Your task to perform on an android device: all mails in gmail Image 0: 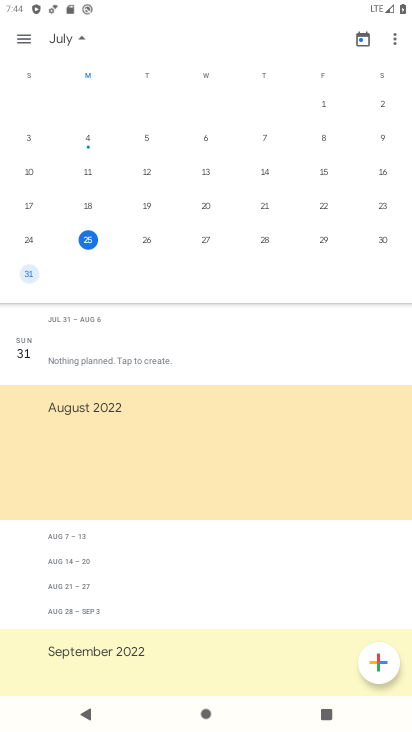
Step 0: press home button
Your task to perform on an android device: all mails in gmail Image 1: 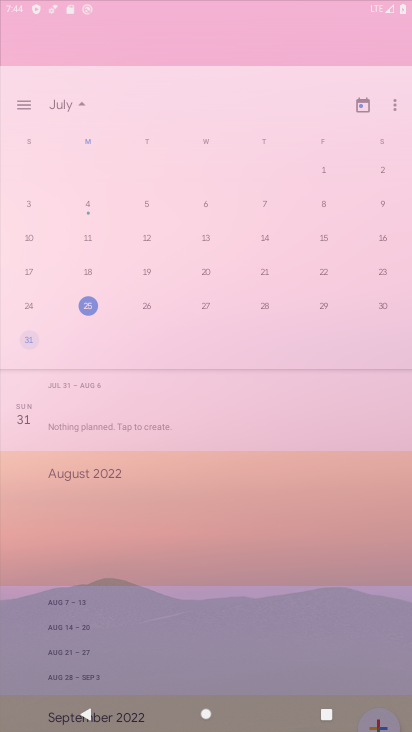
Step 1: drag from (192, 505) to (238, 186)
Your task to perform on an android device: all mails in gmail Image 2: 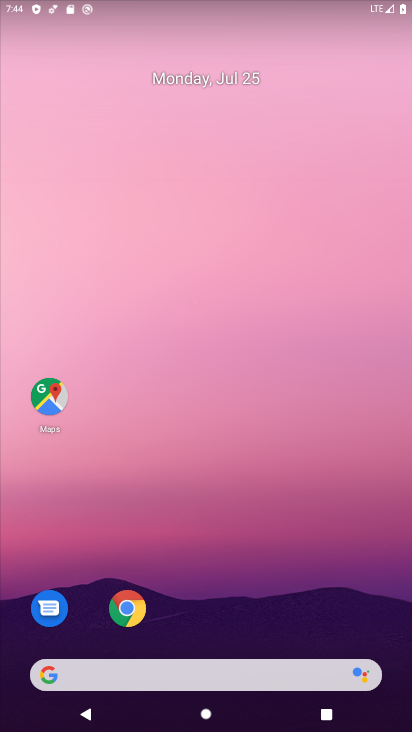
Step 2: drag from (211, 555) to (287, 108)
Your task to perform on an android device: all mails in gmail Image 3: 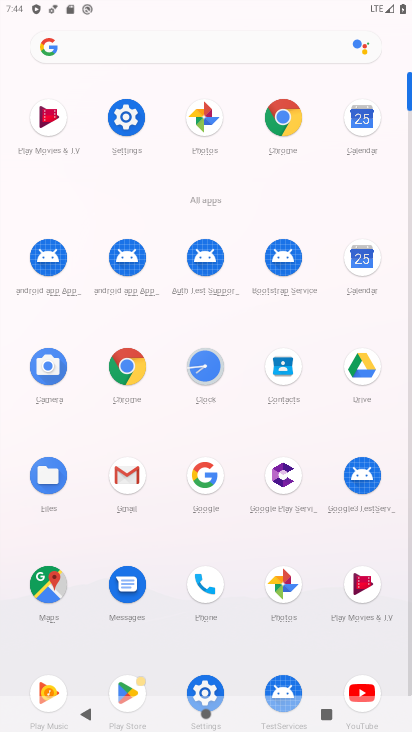
Step 3: click (130, 468)
Your task to perform on an android device: all mails in gmail Image 4: 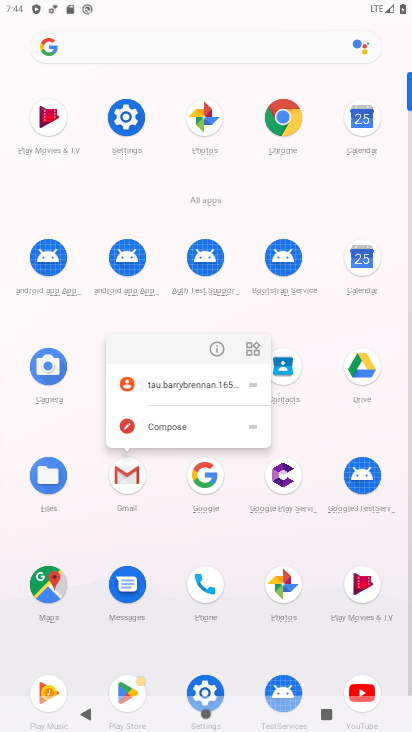
Step 4: click (219, 349)
Your task to perform on an android device: all mails in gmail Image 5: 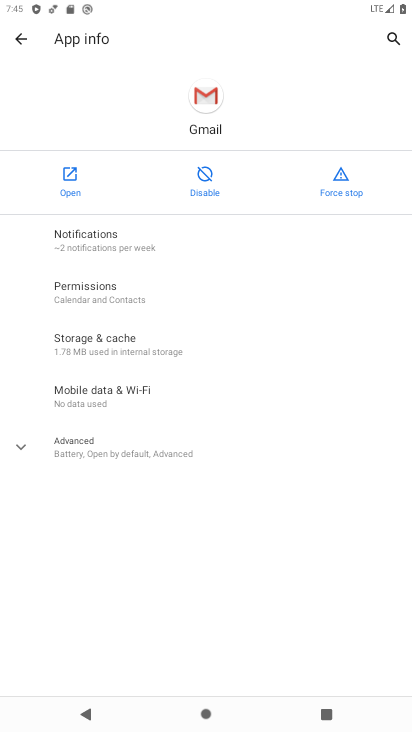
Step 5: click (67, 177)
Your task to perform on an android device: all mails in gmail Image 6: 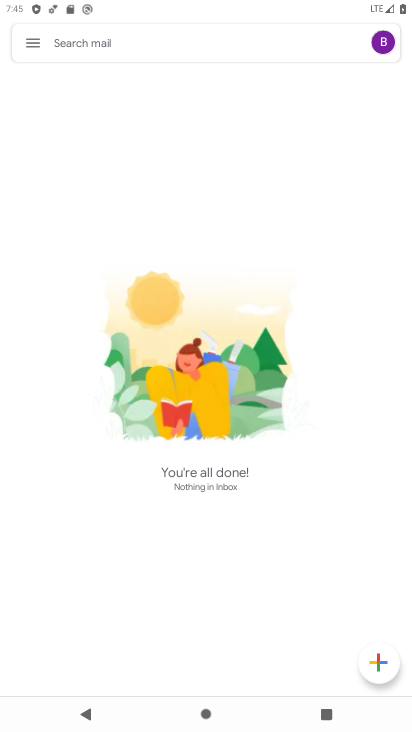
Step 6: drag from (176, 550) to (222, 239)
Your task to perform on an android device: all mails in gmail Image 7: 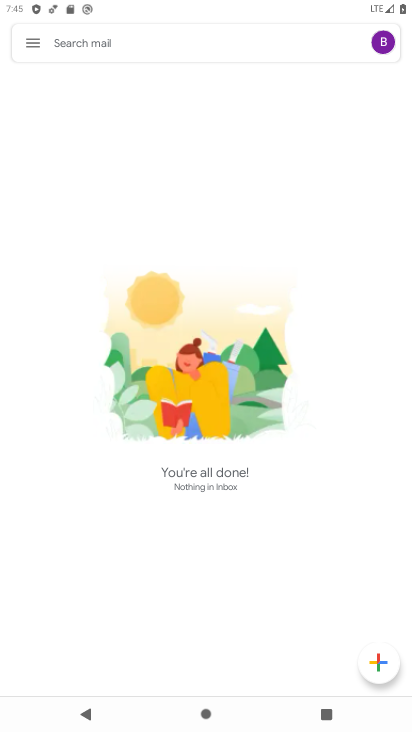
Step 7: click (25, 34)
Your task to perform on an android device: all mails in gmail Image 8: 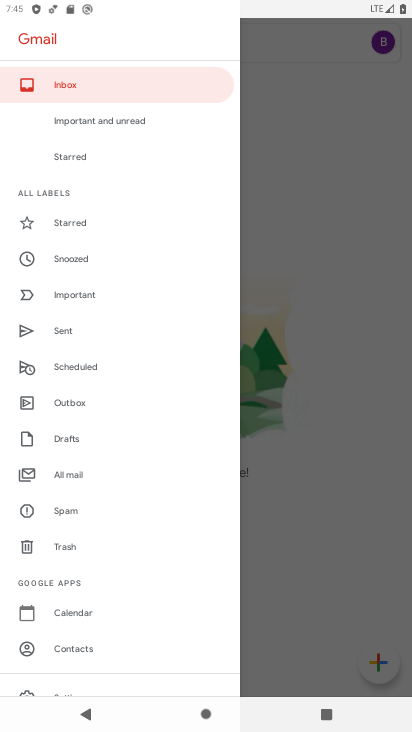
Step 8: drag from (153, 577) to (143, 186)
Your task to perform on an android device: all mails in gmail Image 9: 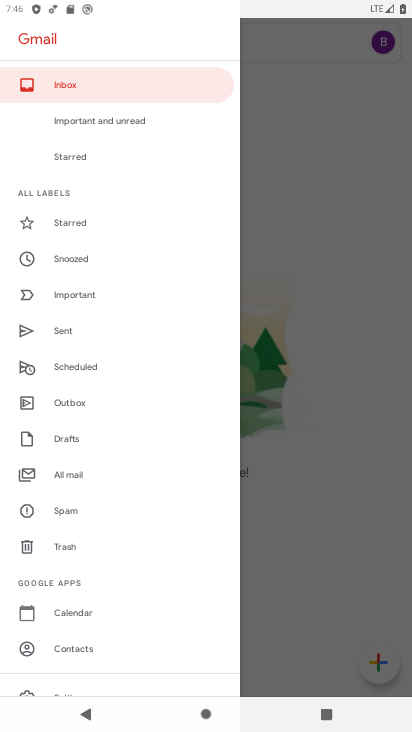
Step 9: drag from (97, 542) to (116, 198)
Your task to perform on an android device: all mails in gmail Image 10: 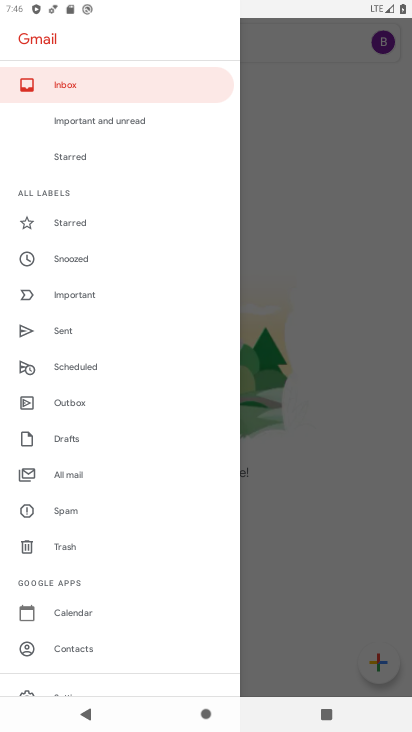
Step 10: drag from (94, 579) to (166, 104)
Your task to perform on an android device: all mails in gmail Image 11: 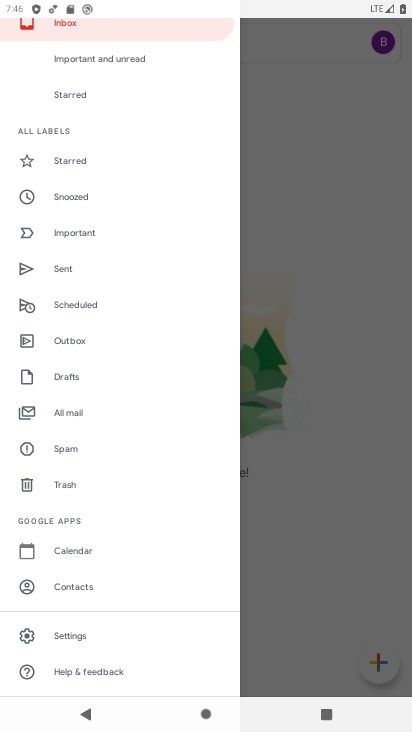
Step 11: click (51, 415)
Your task to perform on an android device: all mails in gmail Image 12: 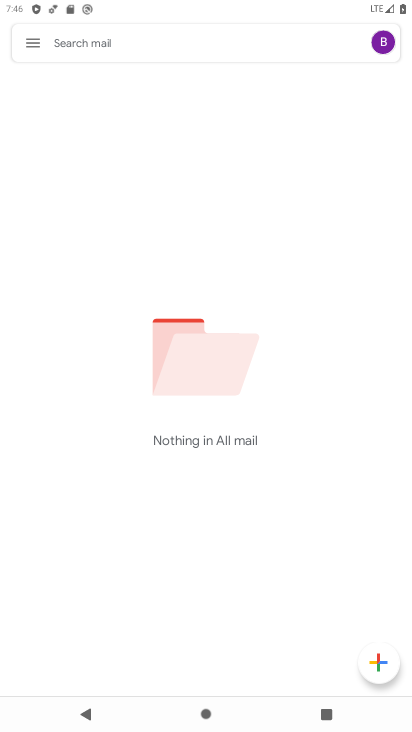
Step 12: task complete